Your task to perform on an android device: Open ESPN.com Image 0: 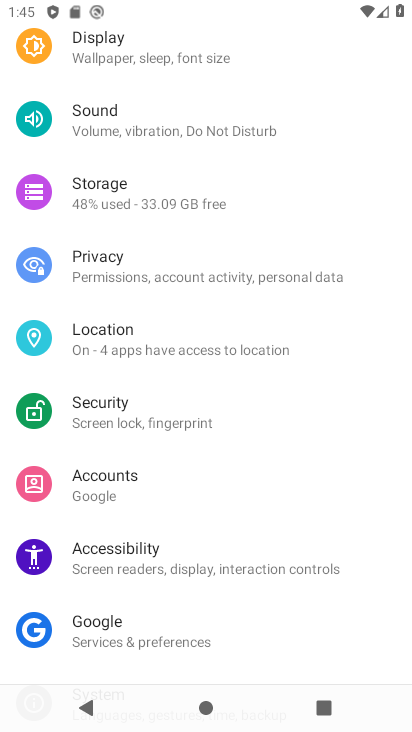
Step 0: press home button
Your task to perform on an android device: Open ESPN.com Image 1: 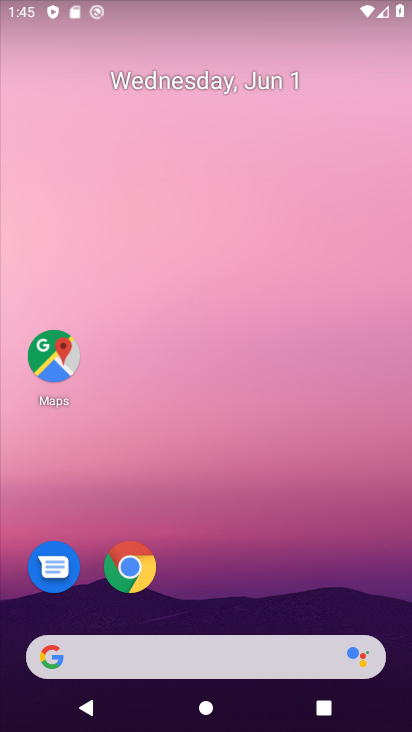
Step 1: click (130, 565)
Your task to perform on an android device: Open ESPN.com Image 2: 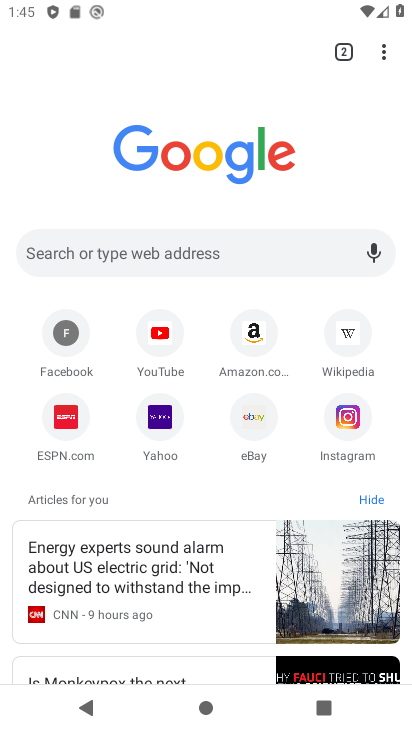
Step 2: click (68, 411)
Your task to perform on an android device: Open ESPN.com Image 3: 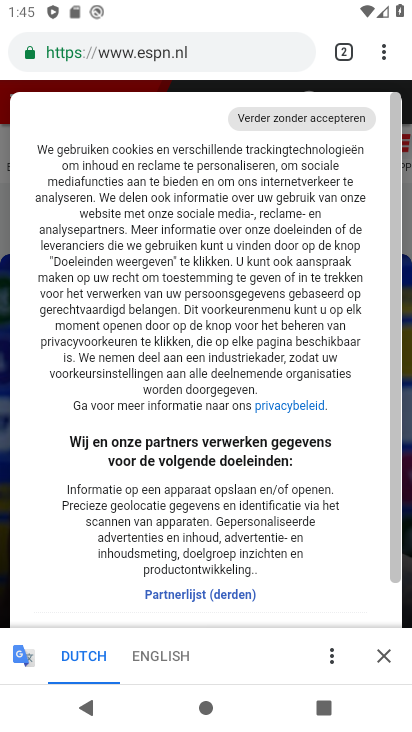
Step 3: task complete